Your task to perform on an android device: Open Google Chrome Image 0: 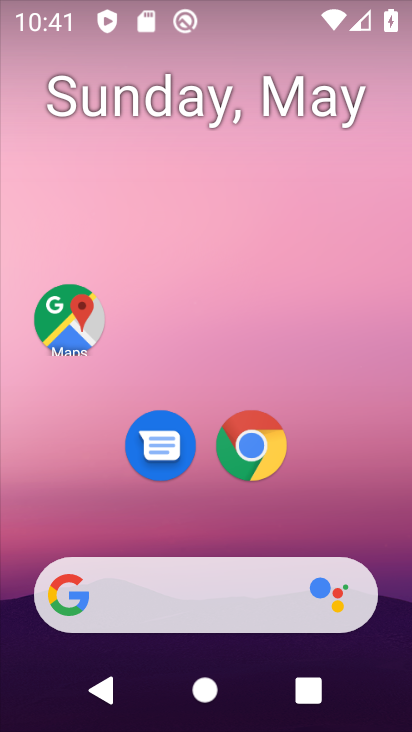
Step 0: click (251, 462)
Your task to perform on an android device: Open Google Chrome Image 1: 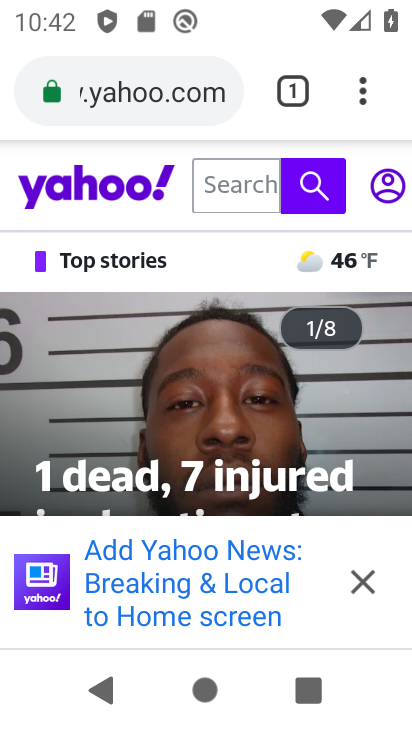
Step 1: task complete